Your task to perform on an android device: Go to Amazon Image 0: 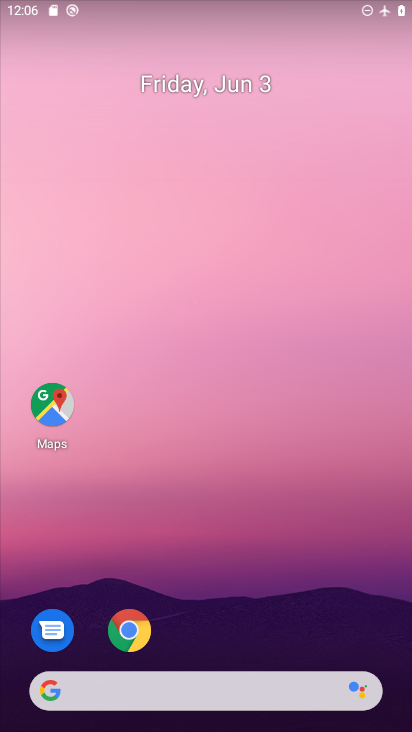
Step 0: click (141, 633)
Your task to perform on an android device: Go to Amazon Image 1: 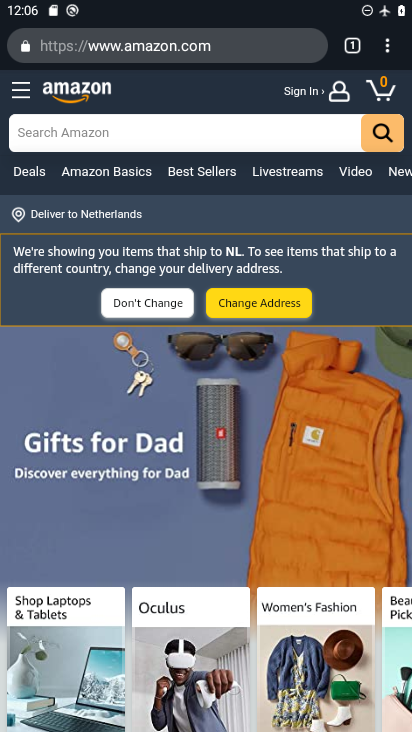
Step 1: task complete